Your task to perform on an android device: set the stopwatch Image 0: 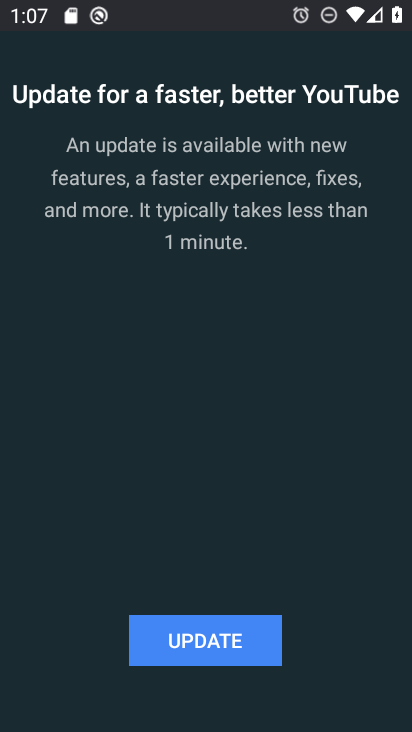
Step 0: press home button
Your task to perform on an android device: set the stopwatch Image 1: 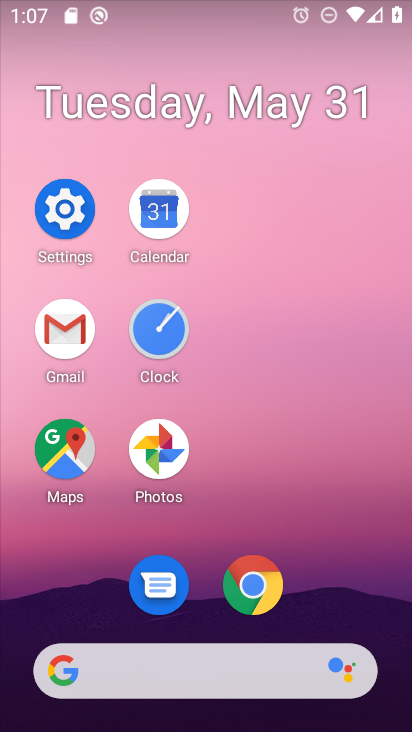
Step 1: click (159, 352)
Your task to perform on an android device: set the stopwatch Image 2: 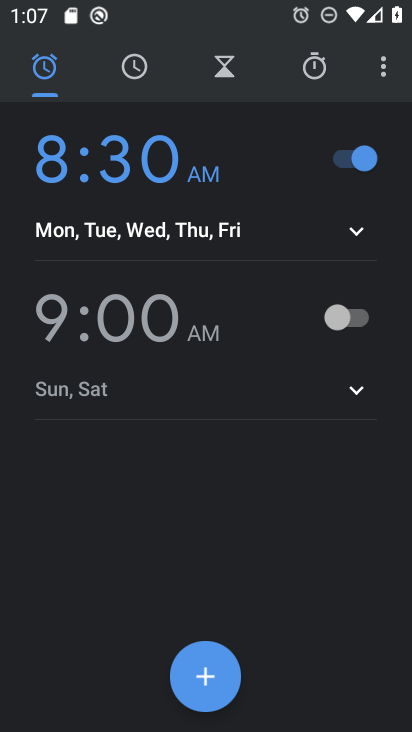
Step 2: click (321, 54)
Your task to perform on an android device: set the stopwatch Image 3: 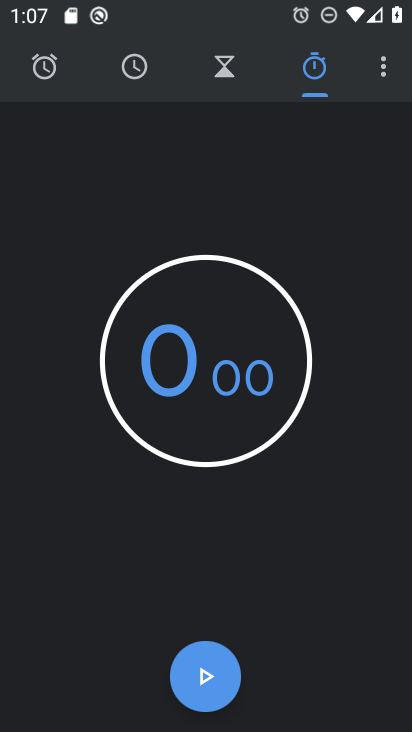
Step 3: click (207, 696)
Your task to perform on an android device: set the stopwatch Image 4: 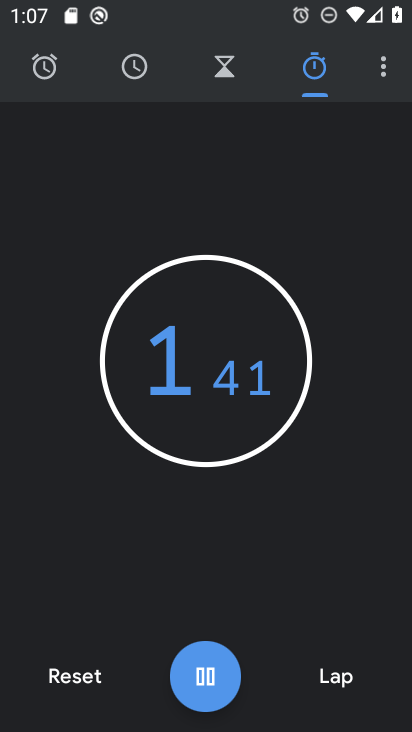
Step 4: task complete